Your task to perform on an android device: Go to ESPN.com Image 0: 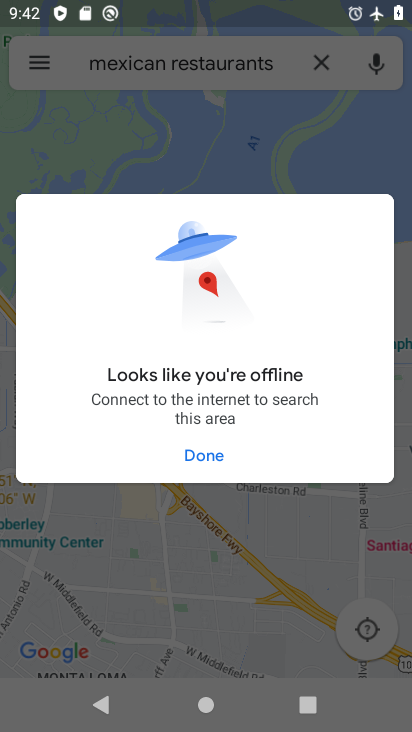
Step 0: press back button
Your task to perform on an android device: Go to ESPN.com Image 1: 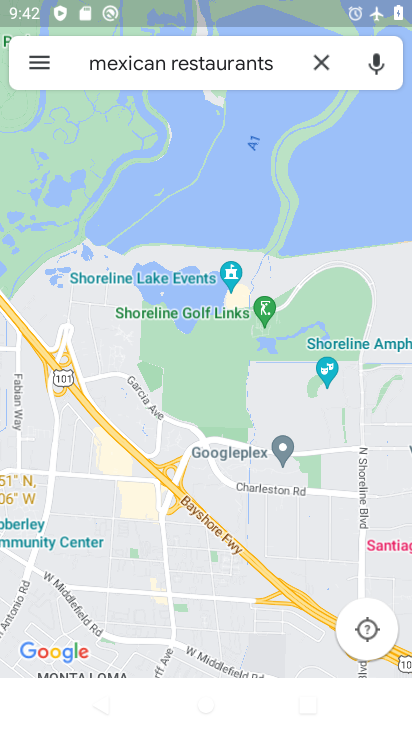
Step 1: press back button
Your task to perform on an android device: Go to ESPN.com Image 2: 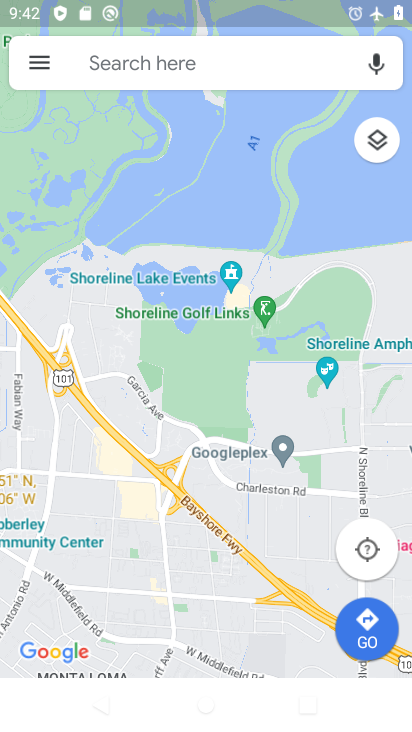
Step 2: press home button
Your task to perform on an android device: Go to ESPN.com Image 3: 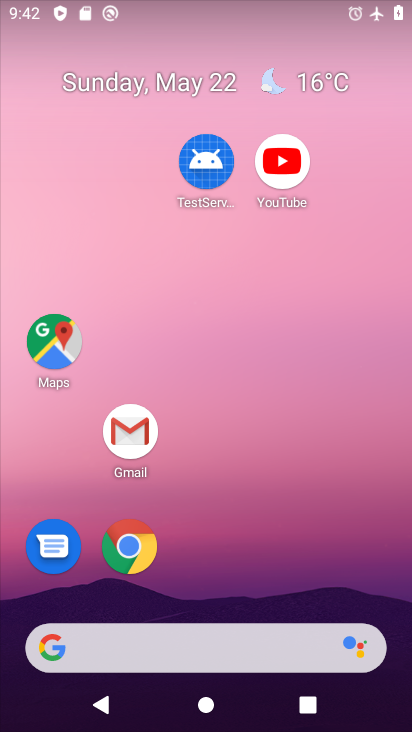
Step 3: drag from (246, 692) to (112, 48)
Your task to perform on an android device: Go to ESPN.com Image 4: 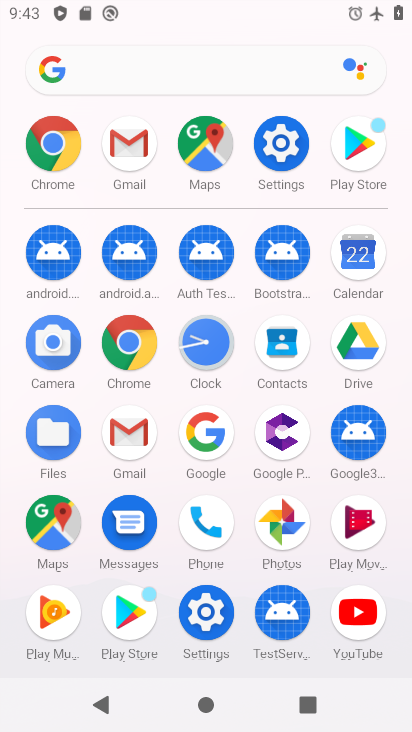
Step 4: click (52, 140)
Your task to perform on an android device: Go to ESPN.com Image 5: 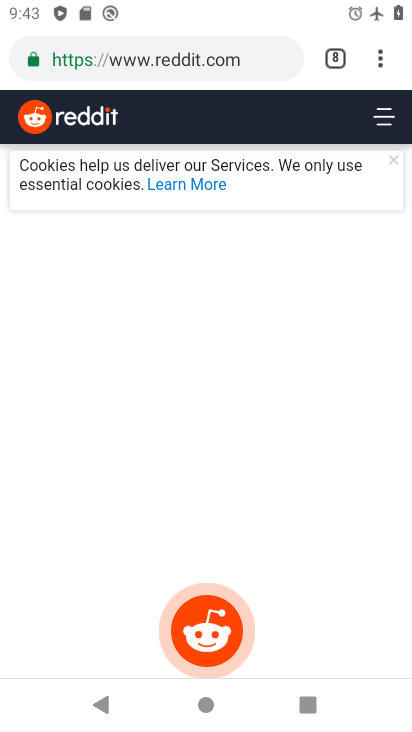
Step 5: drag from (379, 55) to (161, 117)
Your task to perform on an android device: Go to ESPN.com Image 6: 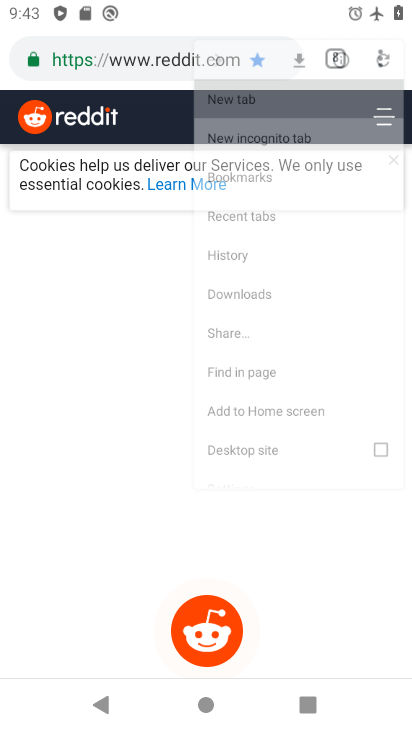
Step 6: click (160, 117)
Your task to perform on an android device: Go to ESPN.com Image 7: 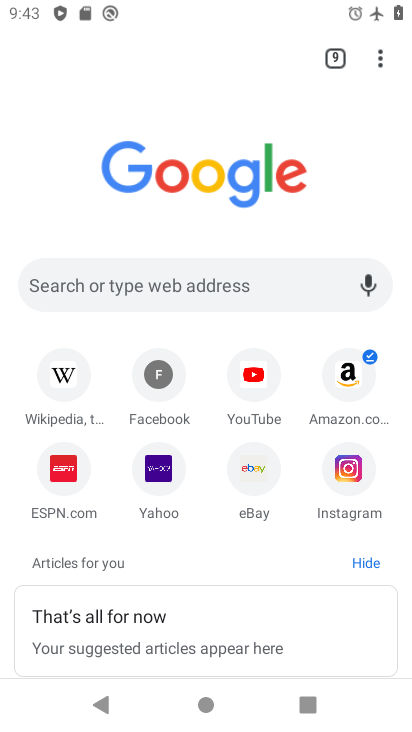
Step 7: click (53, 465)
Your task to perform on an android device: Go to ESPN.com Image 8: 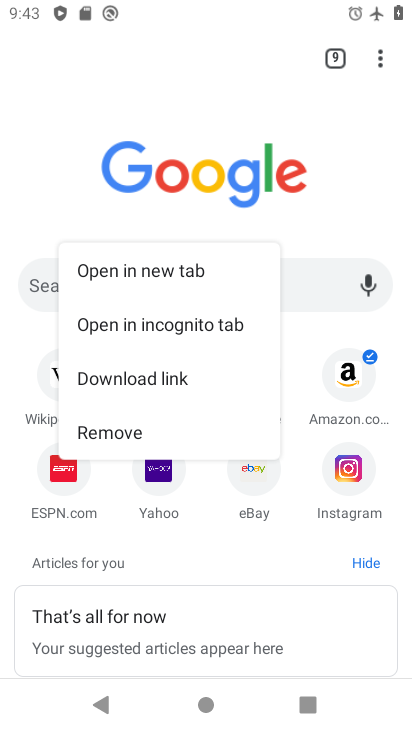
Step 8: click (62, 455)
Your task to perform on an android device: Go to ESPN.com Image 9: 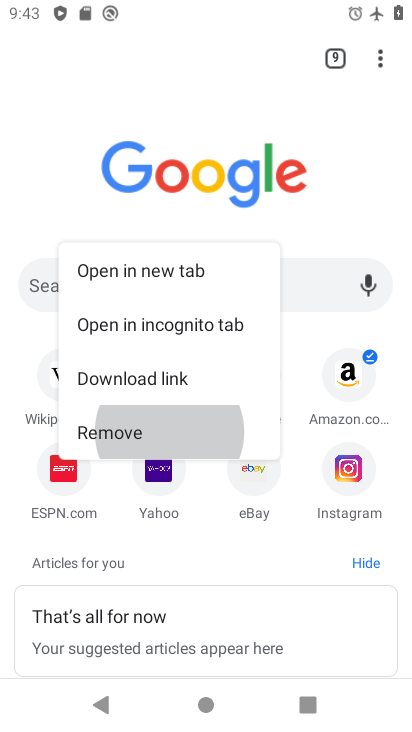
Step 9: click (62, 455)
Your task to perform on an android device: Go to ESPN.com Image 10: 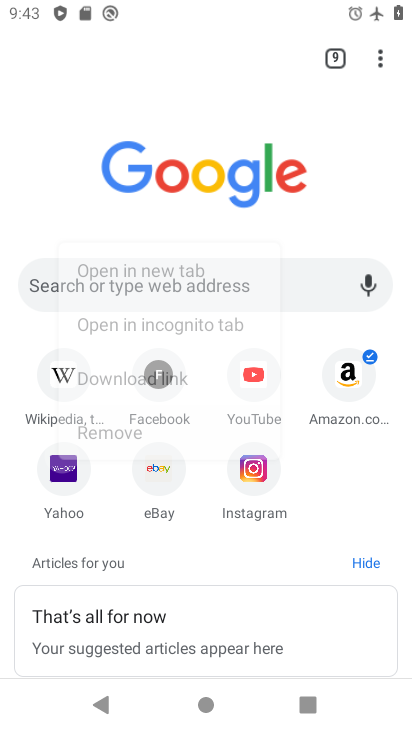
Step 10: click (63, 454)
Your task to perform on an android device: Go to ESPN.com Image 11: 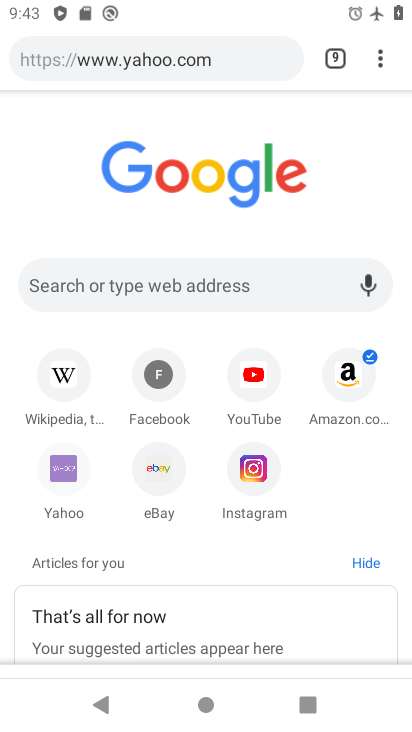
Step 11: click (63, 454)
Your task to perform on an android device: Go to ESPN.com Image 12: 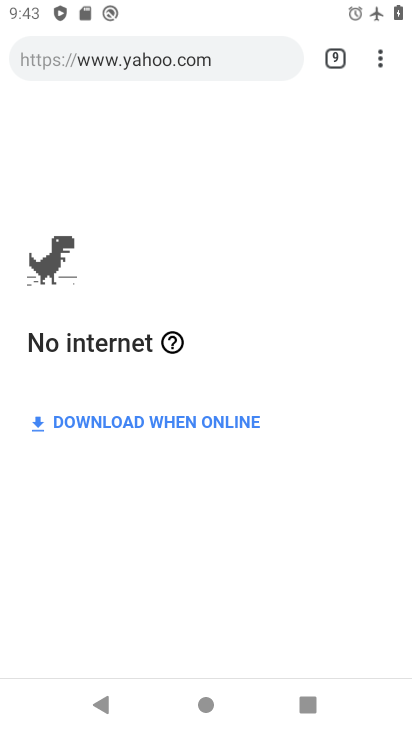
Step 12: task complete